Your task to perform on an android device: toggle show notifications on the lock screen Image 0: 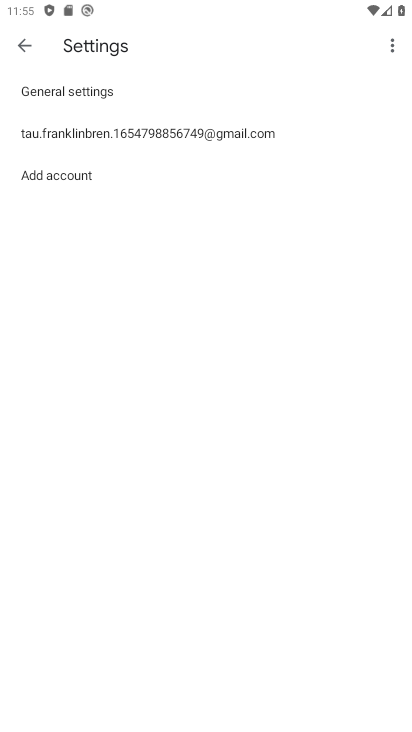
Step 0: press home button
Your task to perform on an android device: toggle show notifications on the lock screen Image 1: 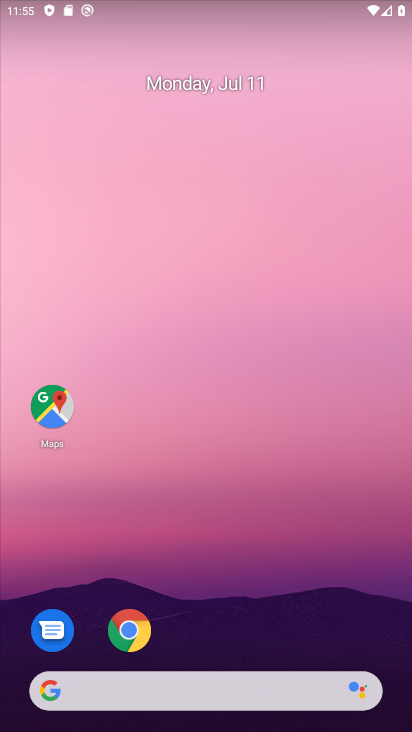
Step 1: drag from (175, 685) to (143, 104)
Your task to perform on an android device: toggle show notifications on the lock screen Image 2: 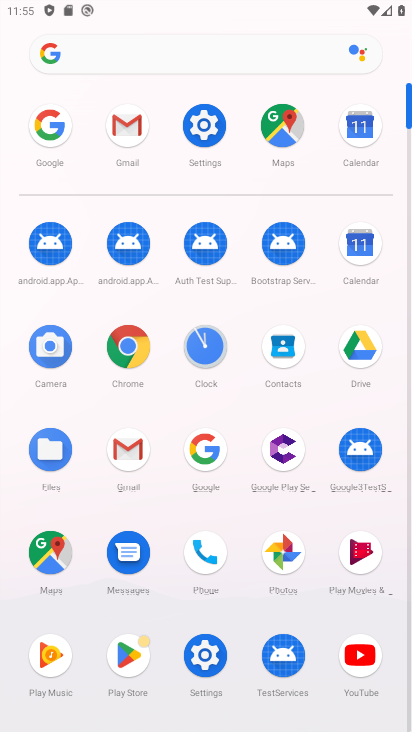
Step 2: click (205, 122)
Your task to perform on an android device: toggle show notifications on the lock screen Image 3: 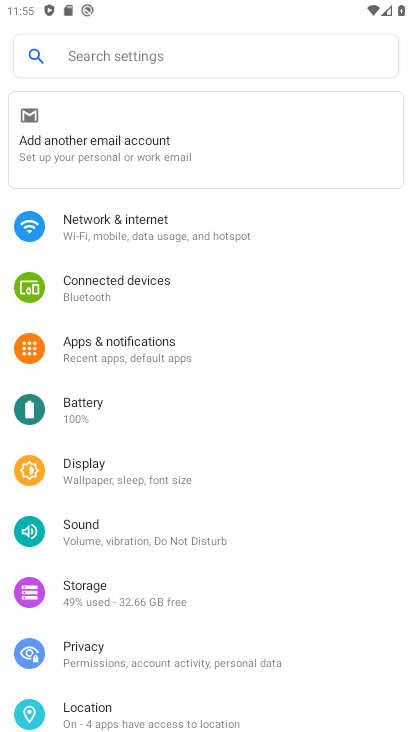
Step 3: click (116, 345)
Your task to perform on an android device: toggle show notifications on the lock screen Image 4: 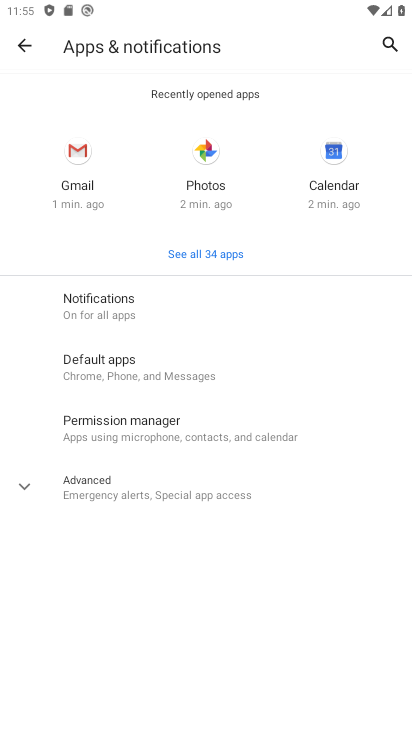
Step 4: click (101, 311)
Your task to perform on an android device: toggle show notifications on the lock screen Image 5: 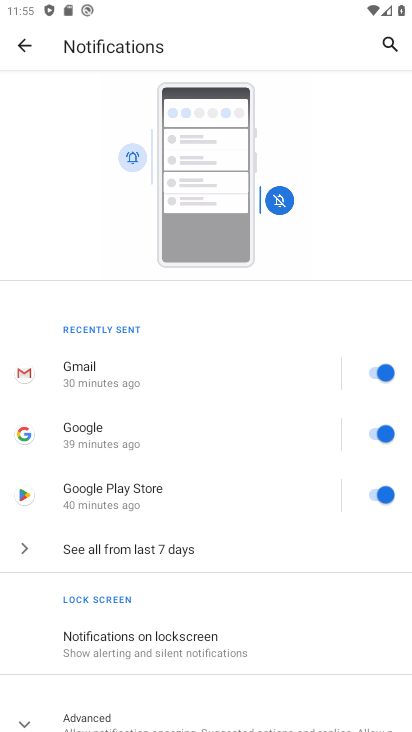
Step 5: click (163, 650)
Your task to perform on an android device: toggle show notifications on the lock screen Image 6: 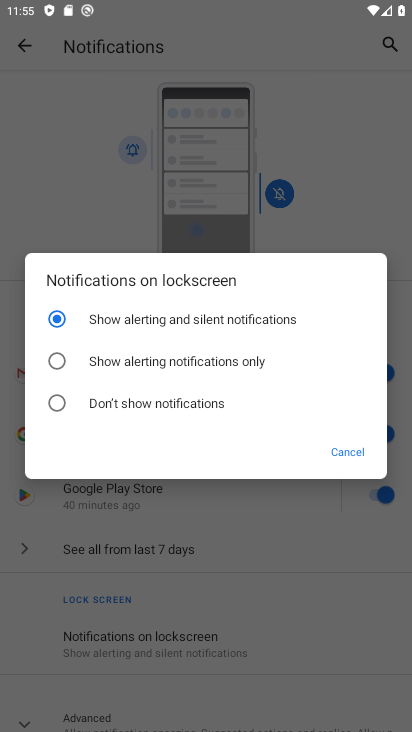
Step 6: click (59, 395)
Your task to perform on an android device: toggle show notifications on the lock screen Image 7: 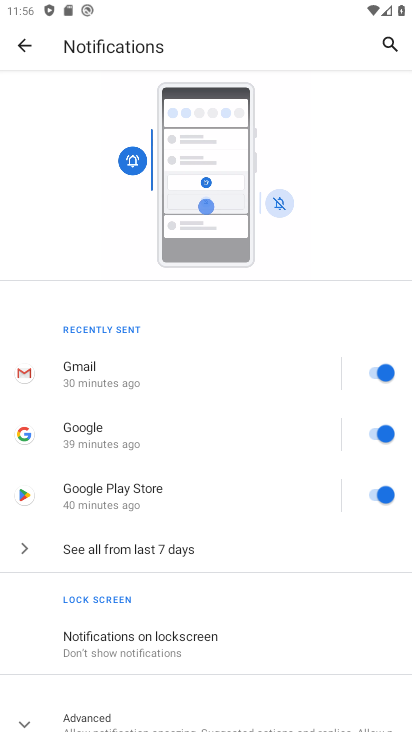
Step 7: task complete